Your task to perform on an android device: change the upload size in google photos Image 0: 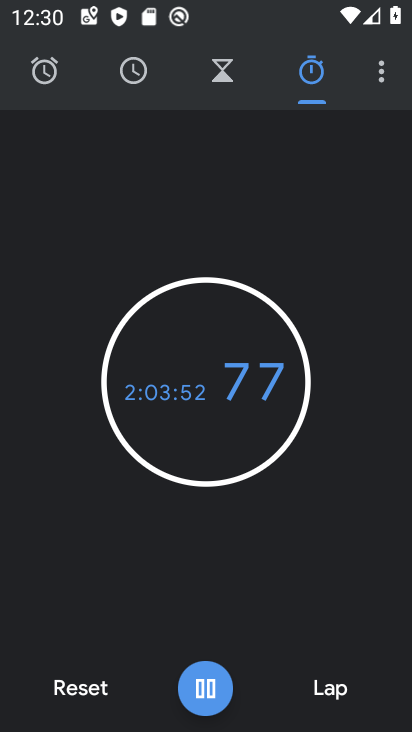
Step 0: press home button
Your task to perform on an android device: change the upload size in google photos Image 1: 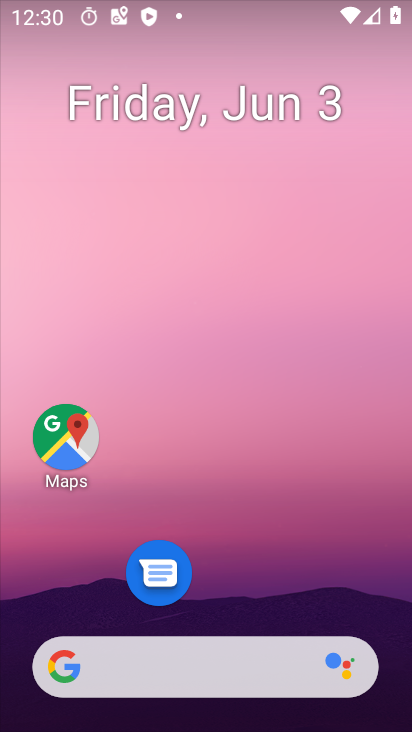
Step 1: drag from (325, 710) to (283, 168)
Your task to perform on an android device: change the upload size in google photos Image 2: 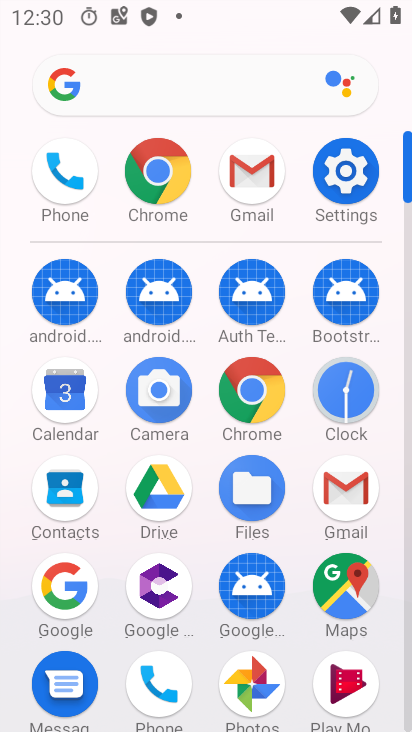
Step 2: drag from (297, 564) to (305, 390)
Your task to perform on an android device: change the upload size in google photos Image 3: 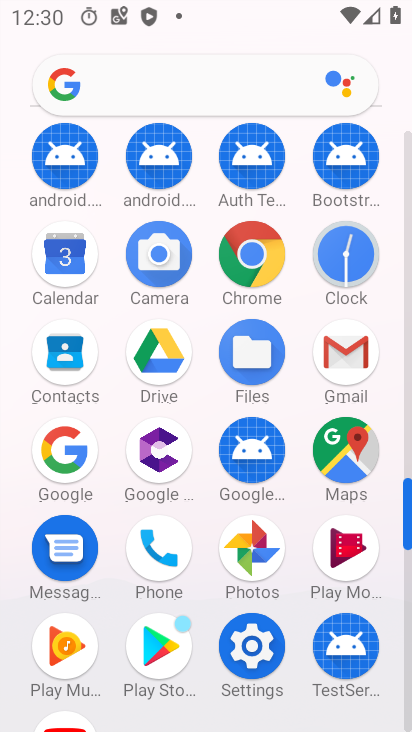
Step 3: click (271, 533)
Your task to perform on an android device: change the upload size in google photos Image 4: 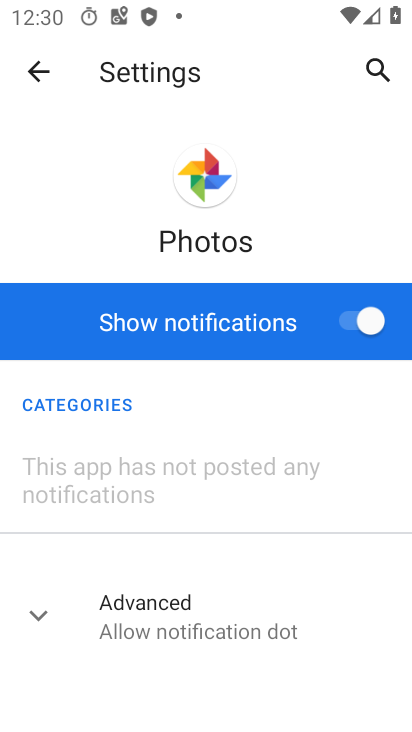
Step 4: press back button
Your task to perform on an android device: change the upload size in google photos Image 5: 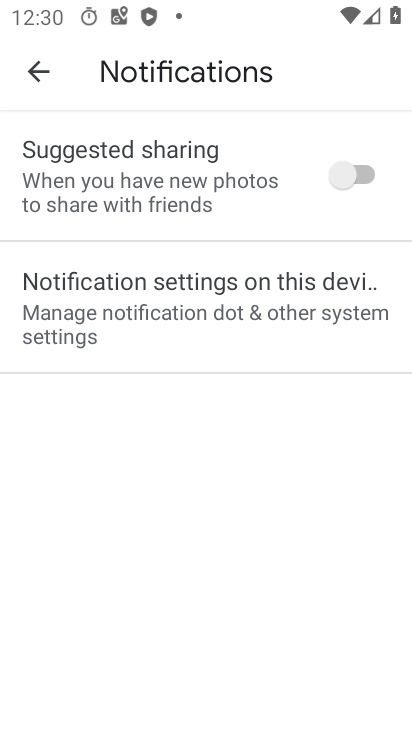
Step 5: press back button
Your task to perform on an android device: change the upload size in google photos Image 6: 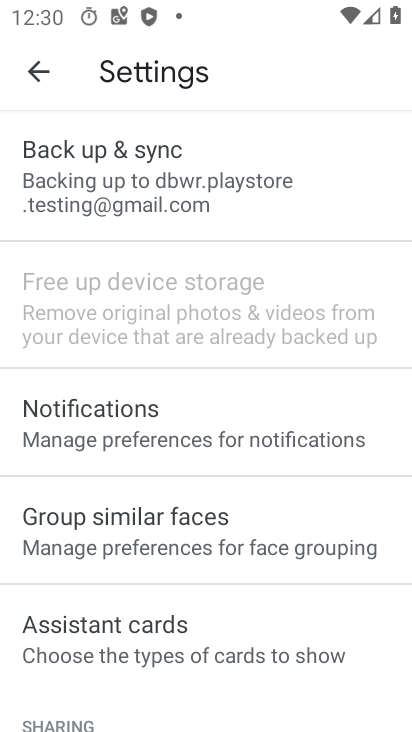
Step 6: click (241, 212)
Your task to perform on an android device: change the upload size in google photos Image 7: 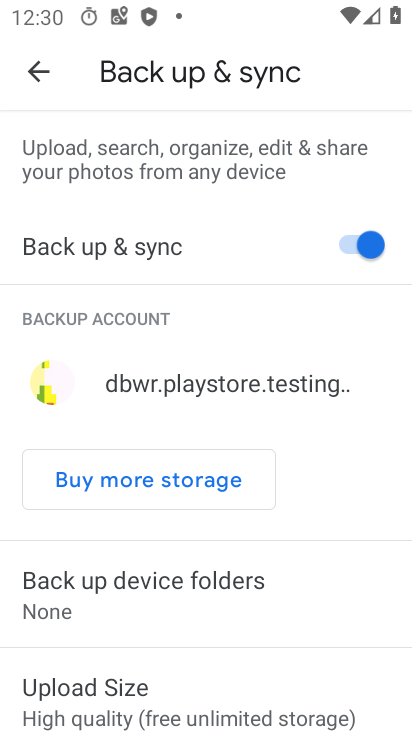
Step 7: click (205, 707)
Your task to perform on an android device: change the upload size in google photos Image 8: 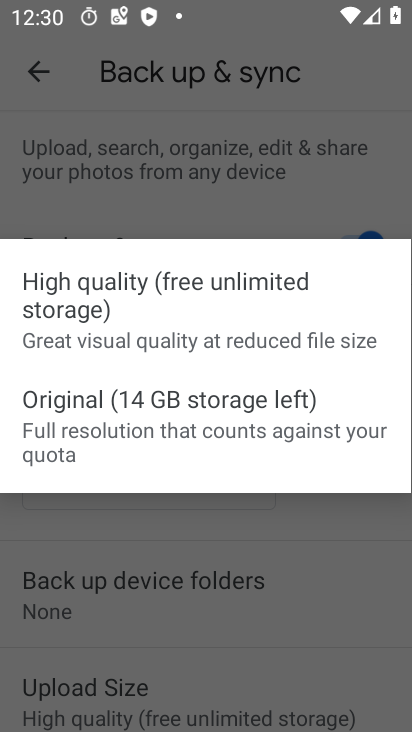
Step 8: click (254, 429)
Your task to perform on an android device: change the upload size in google photos Image 9: 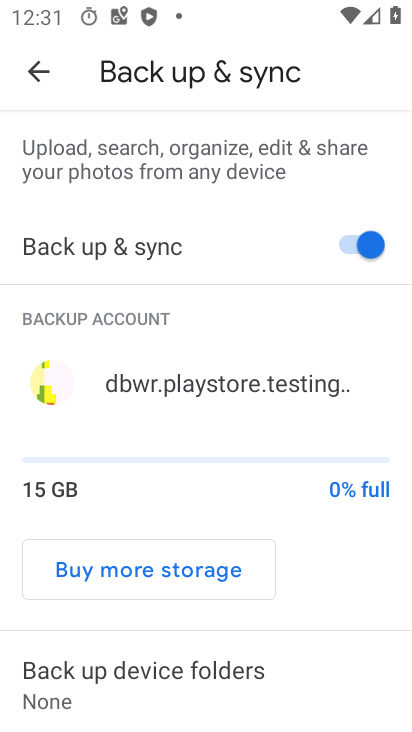
Step 9: task complete